Your task to perform on an android device: turn off priority inbox in the gmail app Image 0: 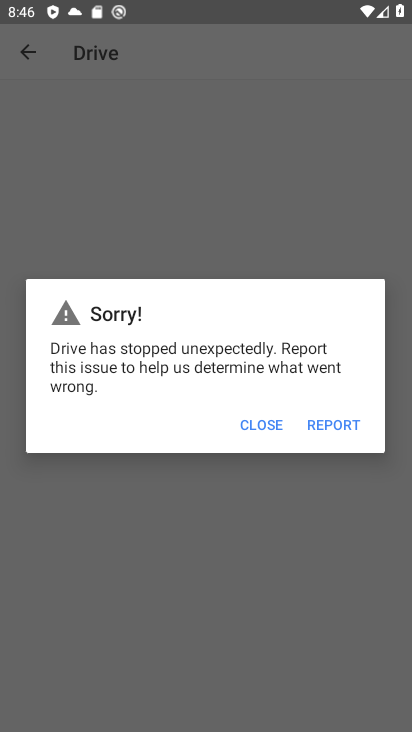
Step 0: press back button
Your task to perform on an android device: turn off priority inbox in the gmail app Image 1: 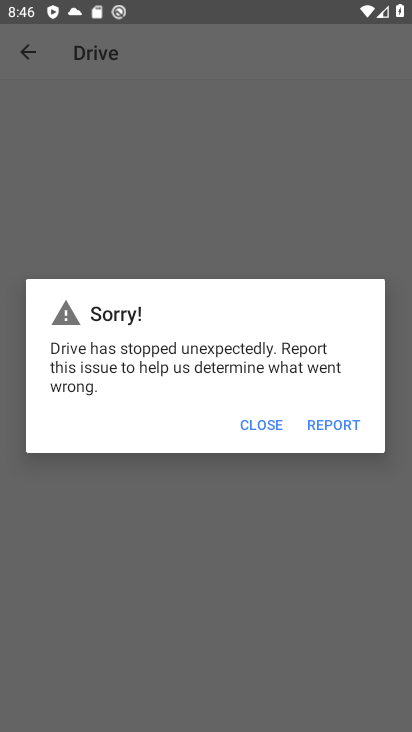
Step 1: press home button
Your task to perform on an android device: turn off priority inbox in the gmail app Image 2: 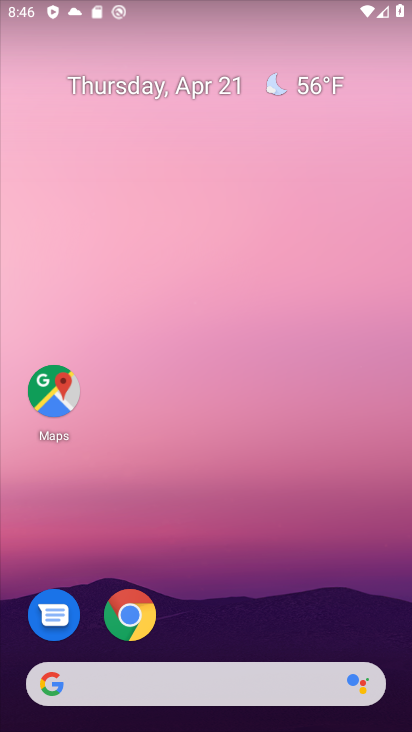
Step 2: drag from (220, 606) to (216, 141)
Your task to perform on an android device: turn off priority inbox in the gmail app Image 3: 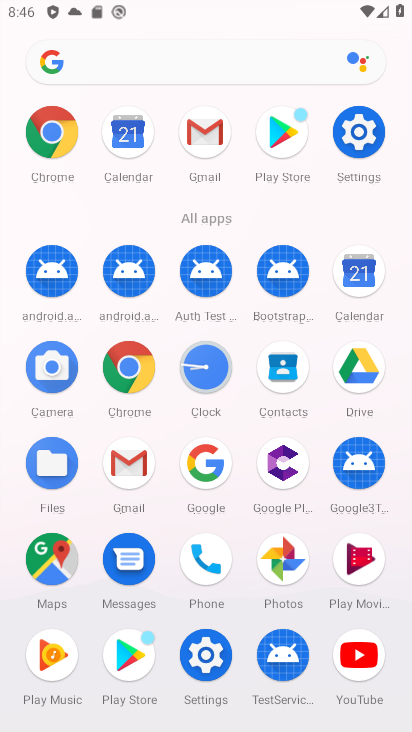
Step 3: click (194, 158)
Your task to perform on an android device: turn off priority inbox in the gmail app Image 4: 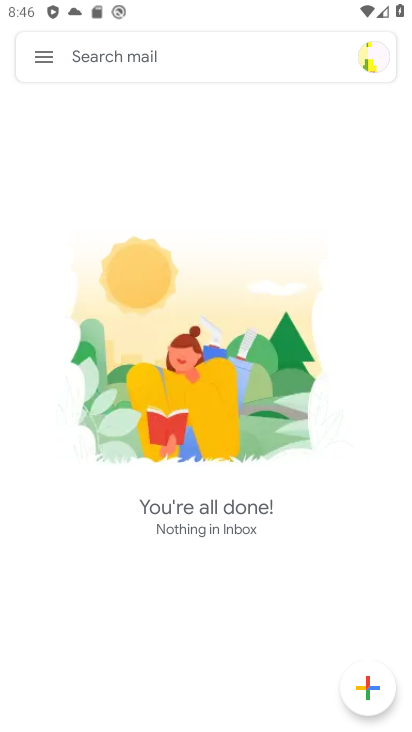
Step 4: click (127, 63)
Your task to perform on an android device: turn off priority inbox in the gmail app Image 5: 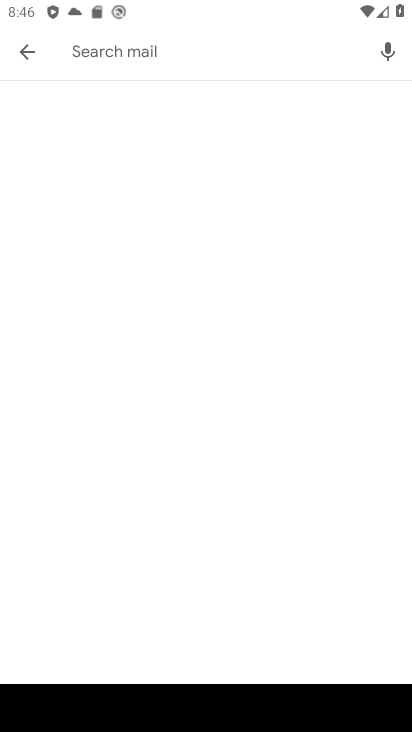
Step 5: click (22, 52)
Your task to perform on an android device: turn off priority inbox in the gmail app Image 6: 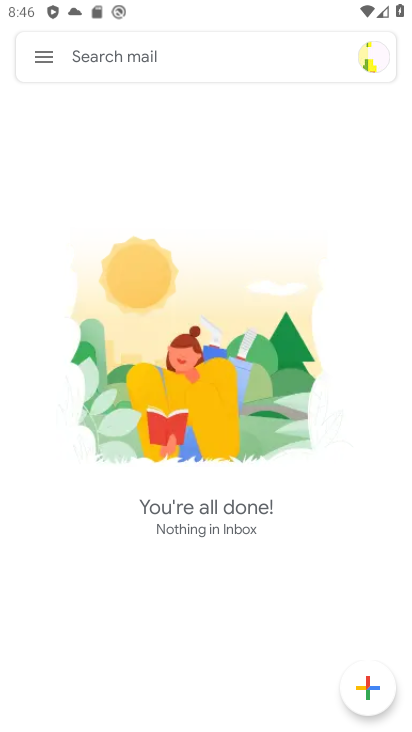
Step 6: click (49, 54)
Your task to perform on an android device: turn off priority inbox in the gmail app Image 7: 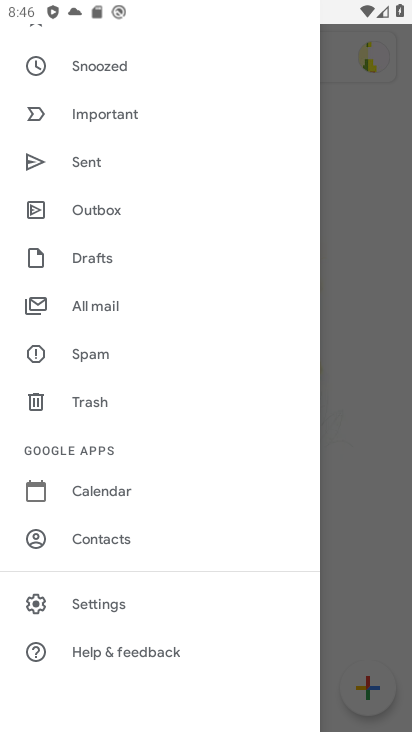
Step 7: click (79, 605)
Your task to perform on an android device: turn off priority inbox in the gmail app Image 8: 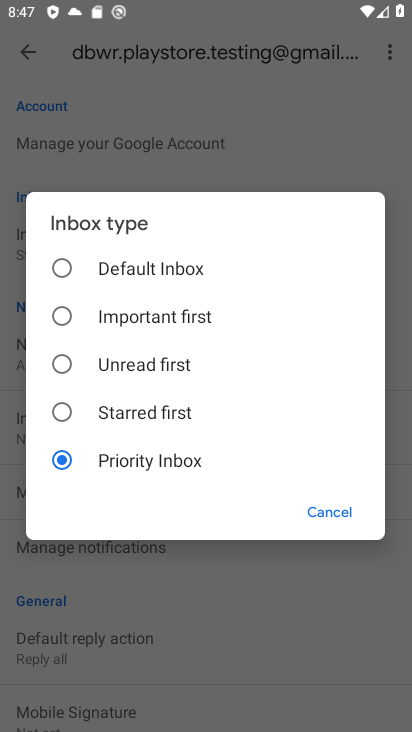
Step 8: task complete